Your task to perform on an android device: turn on wifi Image 0: 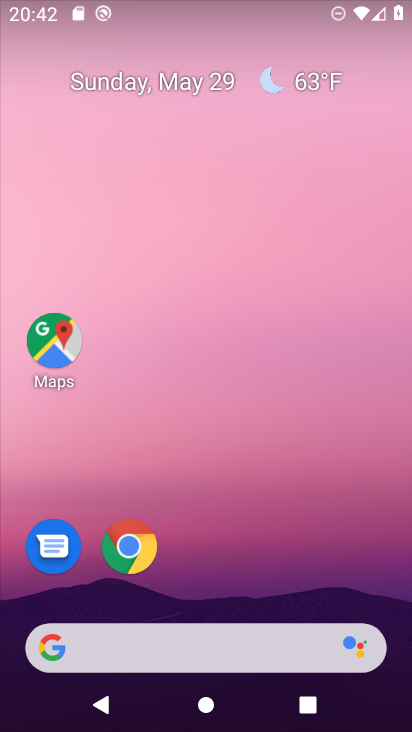
Step 0: press home button
Your task to perform on an android device: turn on wifi Image 1: 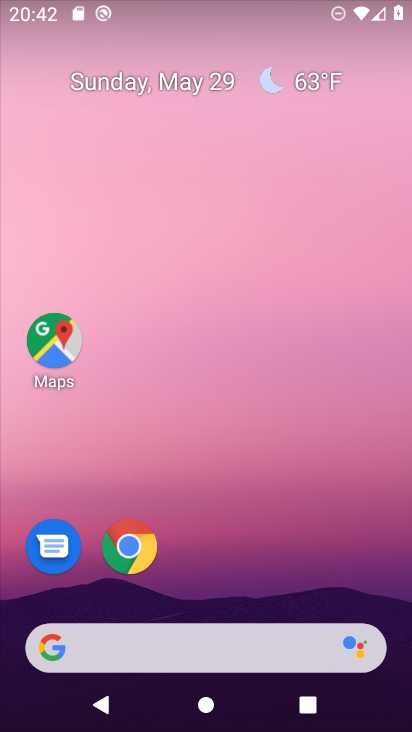
Step 1: drag from (192, 622) to (315, 96)
Your task to perform on an android device: turn on wifi Image 2: 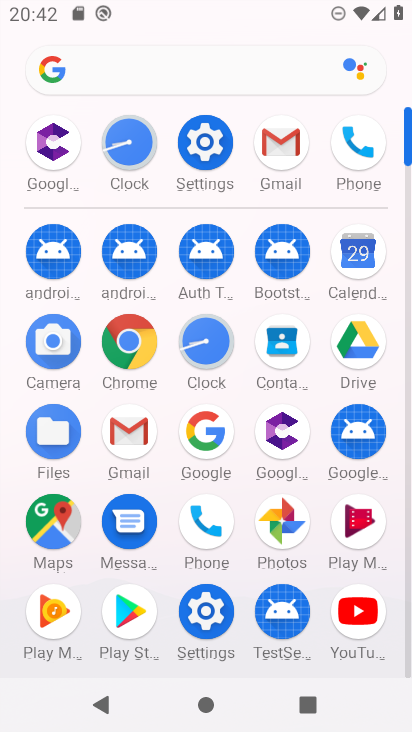
Step 2: click (211, 151)
Your task to perform on an android device: turn on wifi Image 3: 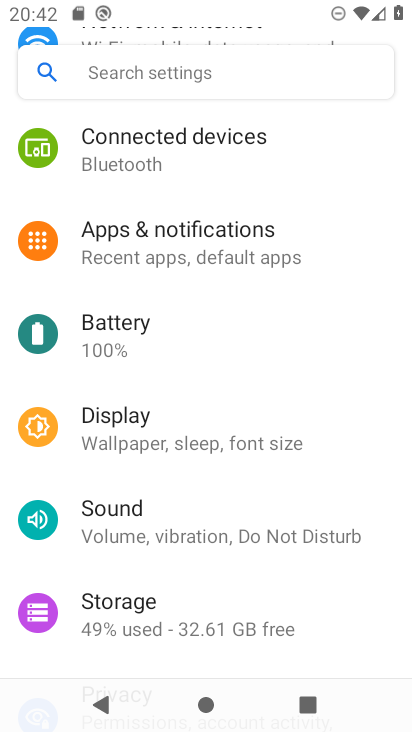
Step 3: drag from (287, 119) to (166, 593)
Your task to perform on an android device: turn on wifi Image 4: 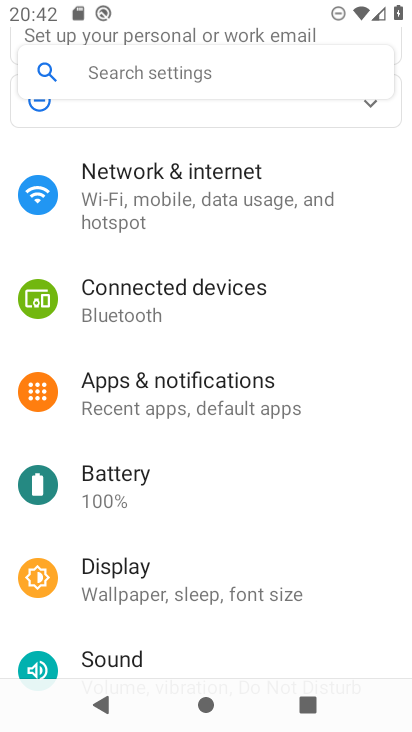
Step 4: click (226, 164)
Your task to perform on an android device: turn on wifi Image 5: 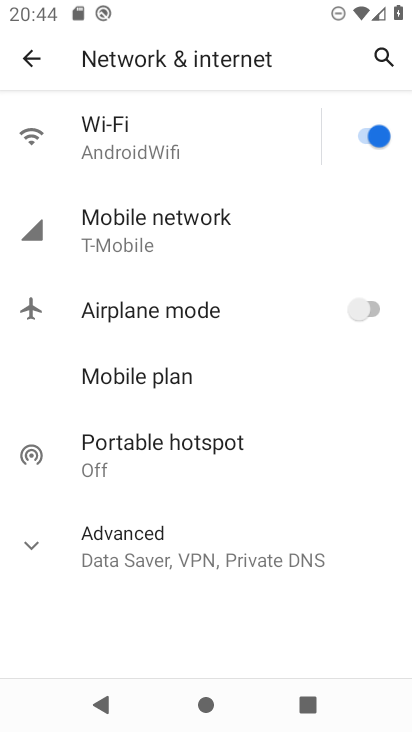
Step 5: task complete